Your task to perform on an android device: turn on bluetooth scan Image 0: 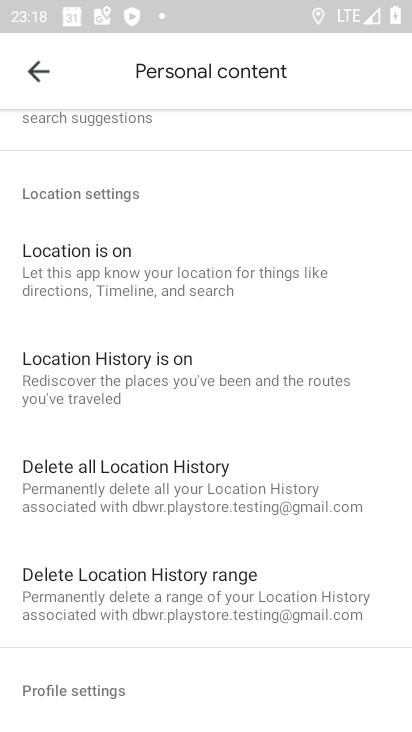
Step 0: press home button
Your task to perform on an android device: turn on bluetooth scan Image 1: 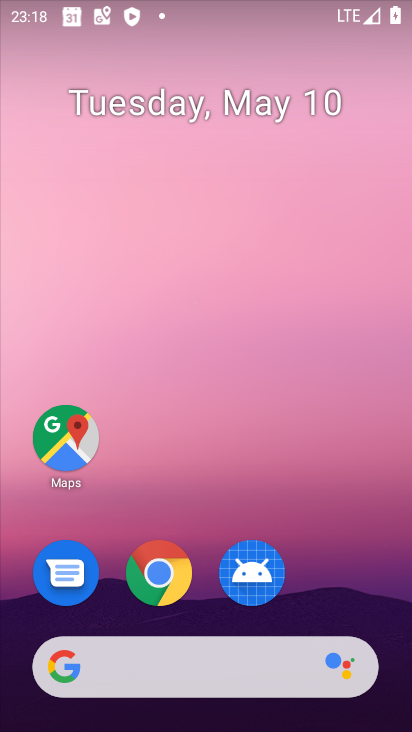
Step 1: drag from (284, 505) to (199, 54)
Your task to perform on an android device: turn on bluetooth scan Image 2: 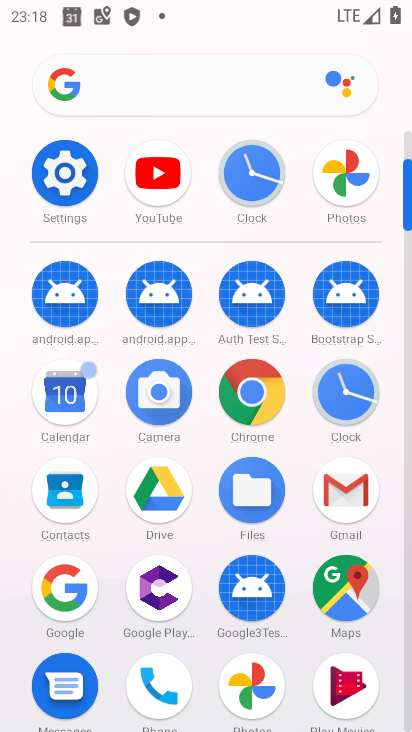
Step 2: click (55, 181)
Your task to perform on an android device: turn on bluetooth scan Image 3: 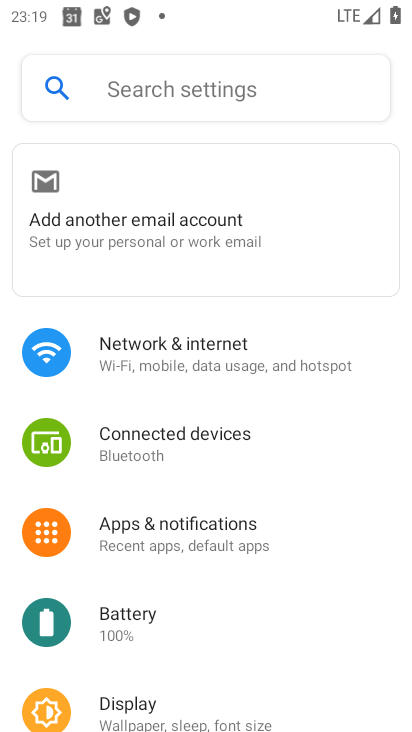
Step 3: drag from (194, 577) to (170, 304)
Your task to perform on an android device: turn on bluetooth scan Image 4: 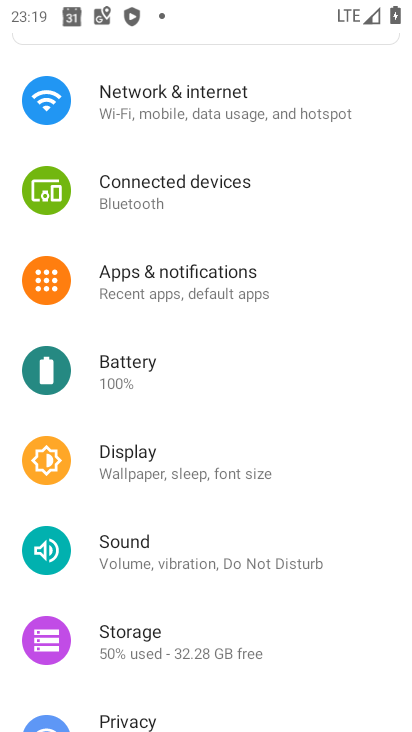
Step 4: drag from (230, 425) to (230, 232)
Your task to perform on an android device: turn on bluetooth scan Image 5: 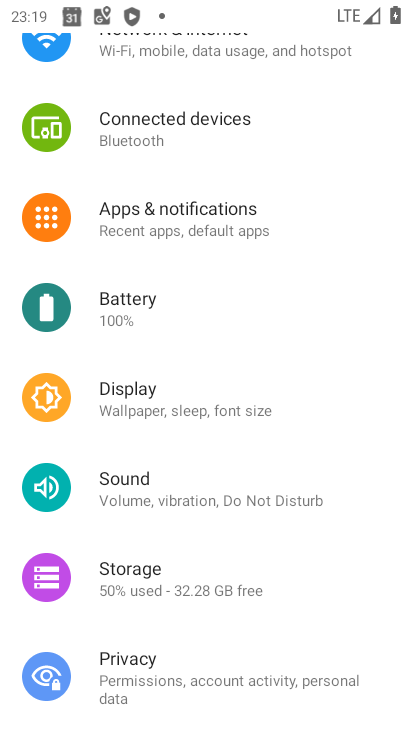
Step 5: drag from (262, 344) to (248, 612)
Your task to perform on an android device: turn on bluetooth scan Image 6: 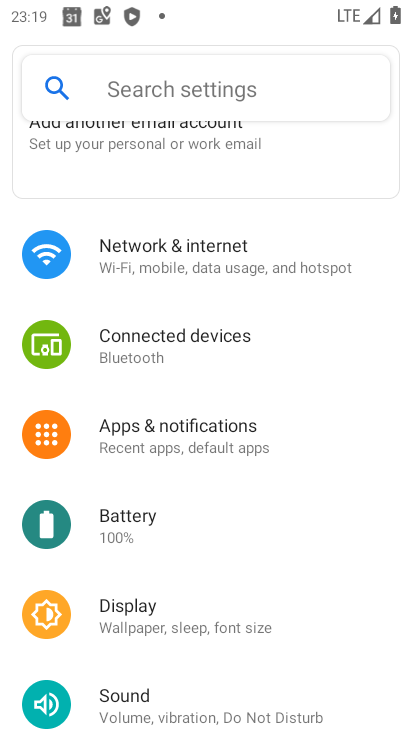
Step 6: drag from (269, 548) to (241, 278)
Your task to perform on an android device: turn on bluetooth scan Image 7: 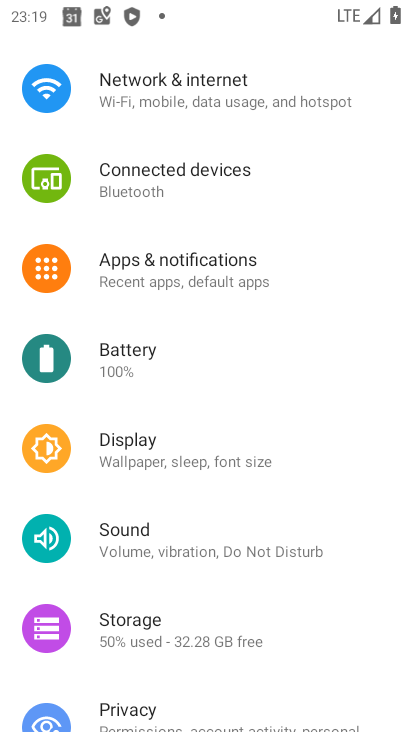
Step 7: drag from (255, 609) to (241, 339)
Your task to perform on an android device: turn on bluetooth scan Image 8: 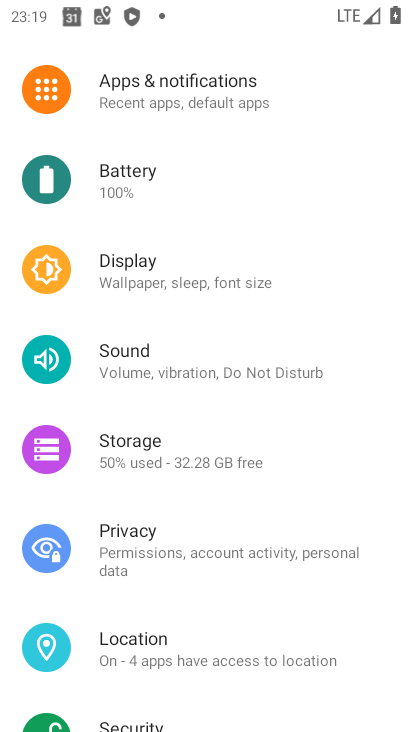
Step 8: click (129, 636)
Your task to perform on an android device: turn on bluetooth scan Image 9: 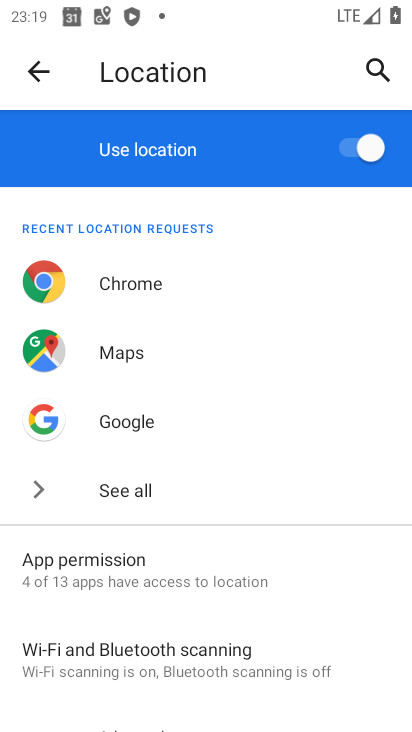
Step 9: click (171, 650)
Your task to perform on an android device: turn on bluetooth scan Image 10: 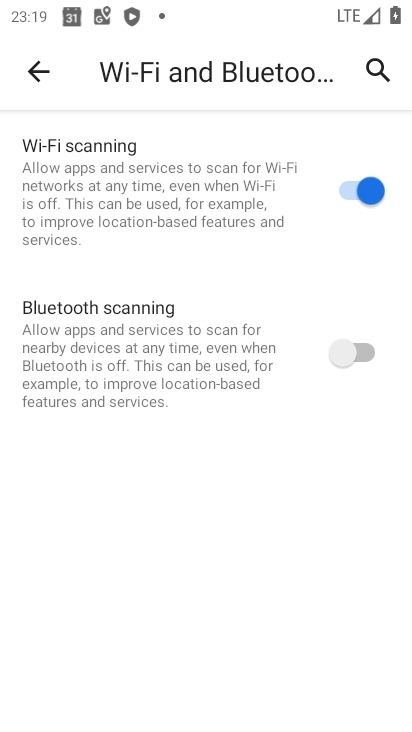
Step 10: click (331, 358)
Your task to perform on an android device: turn on bluetooth scan Image 11: 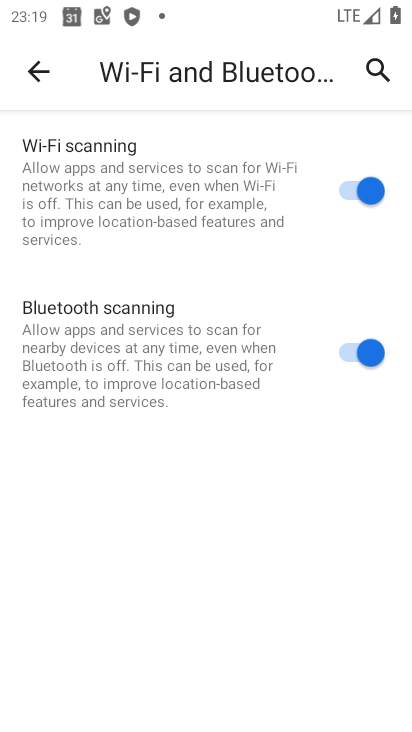
Step 11: task complete